Your task to perform on an android device: star an email in the gmail app Image 0: 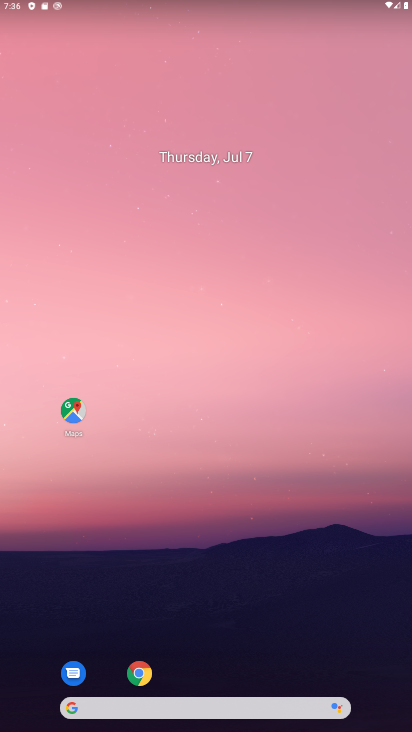
Step 0: drag from (212, 468) to (225, 224)
Your task to perform on an android device: star an email in the gmail app Image 1: 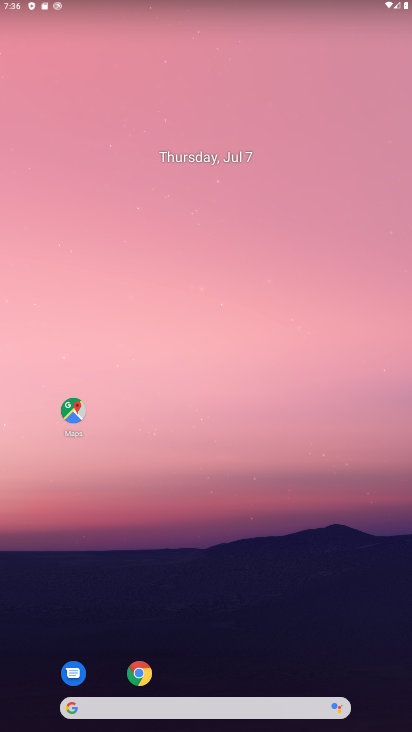
Step 1: click (198, 255)
Your task to perform on an android device: star an email in the gmail app Image 2: 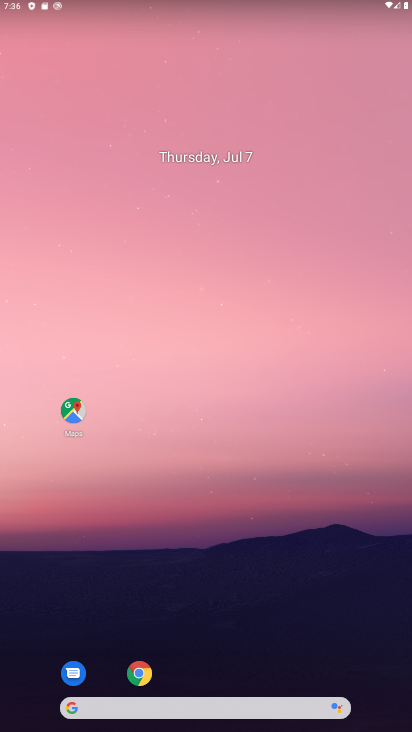
Step 2: drag from (196, 602) to (261, 13)
Your task to perform on an android device: star an email in the gmail app Image 3: 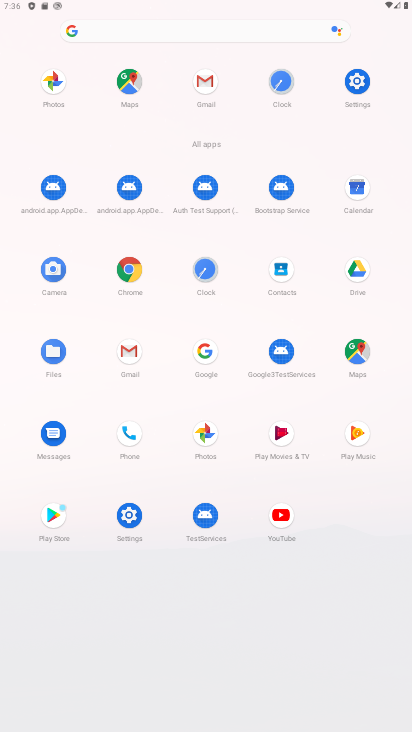
Step 3: click (202, 87)
Your task to perform on an android device: star an email in the gmail app Image 4: 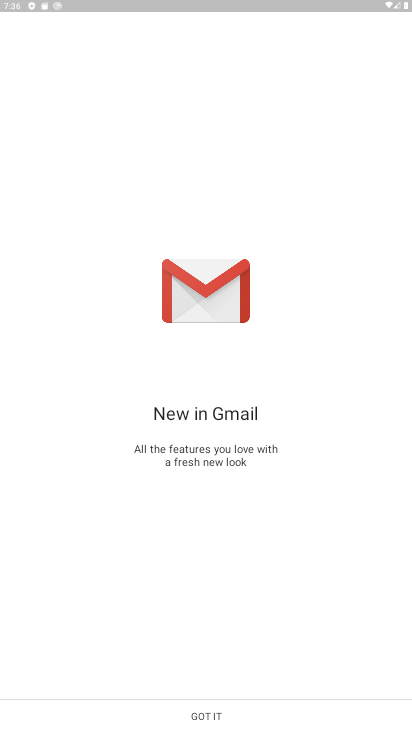
Step 4: click (208, 716)
Your task to perform on an android device: star an email in the gmail app Image 5: 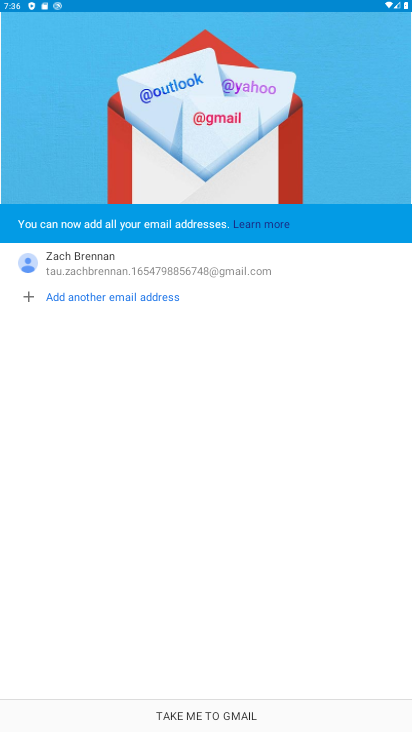
Step 5: click (208, 716)
Your task to perform on an android device: star an email in the gmail app Image 6: 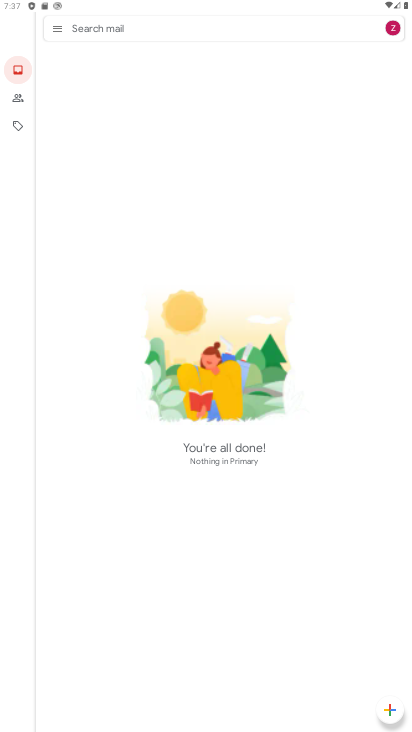
Step 6: task complete